Your task to perform on an android device: set the timer Image 0: 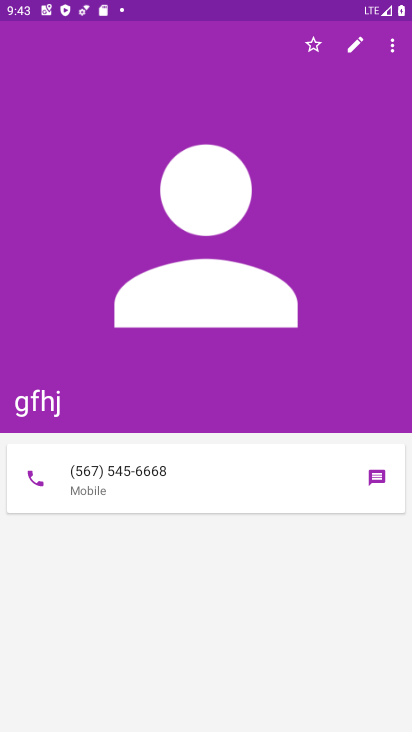
Step 0: press home button
Your task to perform on an android device: set the timer Image 1: 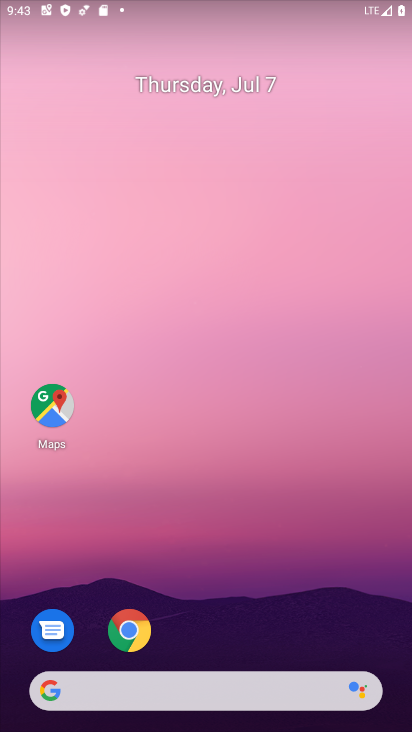
Step 1: drag from (239, 633) to (200, 211)
Your task to perform on an android device: set the timer Image 2: 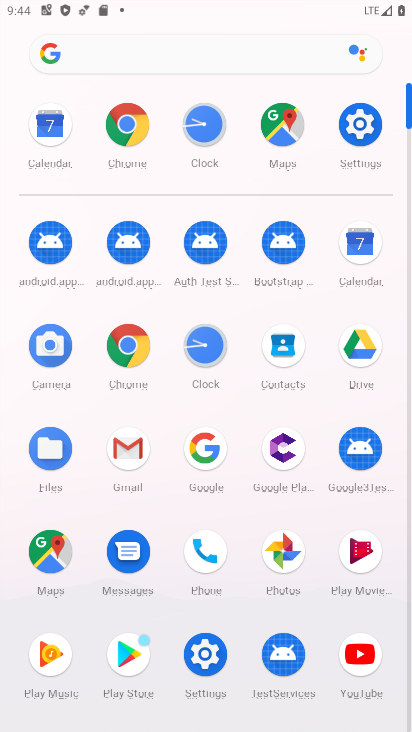
Step 2: click (207, 133)
Your task to perform on an android device: set the timer Image 3: 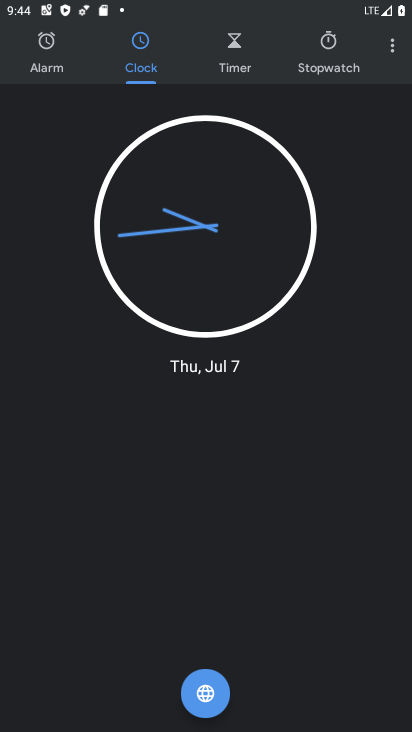
Step 3: click (230, 57)
Your task to perform on an android device: set the timer Image 4: 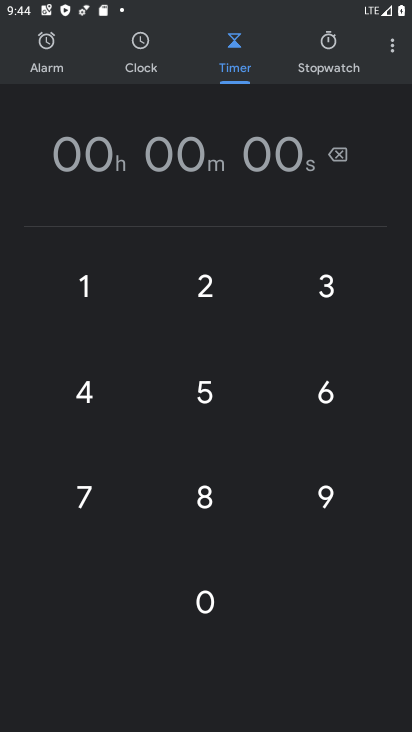
Step 4: click (272, 136)
Your task to perform on an android device: set the timer Image 5: 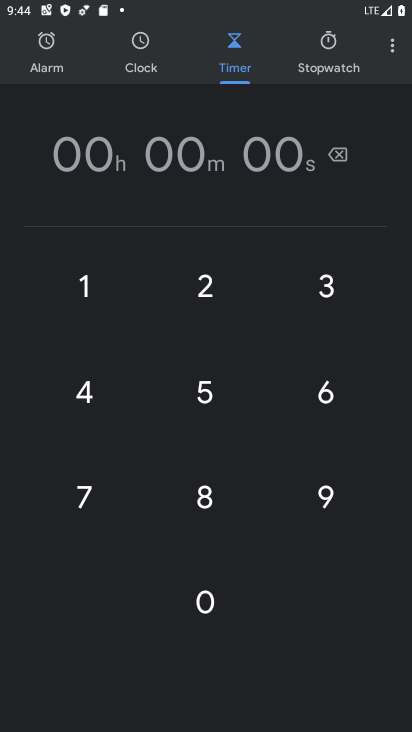
Step 5: type "21"
Your task to perform on an android device: set the timer Image 6: 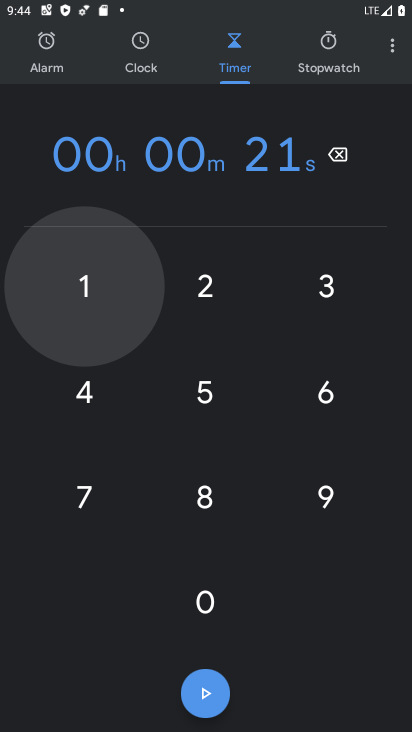
Step 6: click (183, 687)
Your task to perform on an android device: set the timer Image 7: 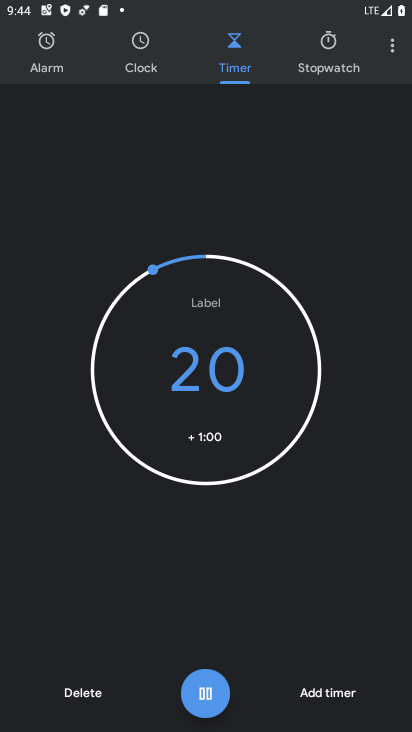
Step 7: task complete